Your task to perform on an android device: turn on location history Image 0: 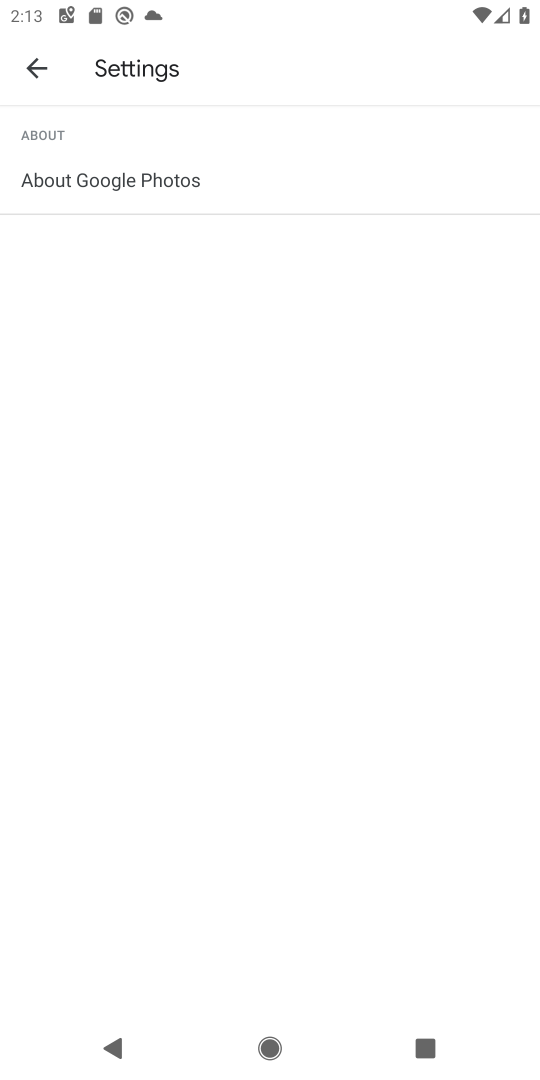
Step 0: press home button
Your task to perform on an android device: turn on location history Image 1: 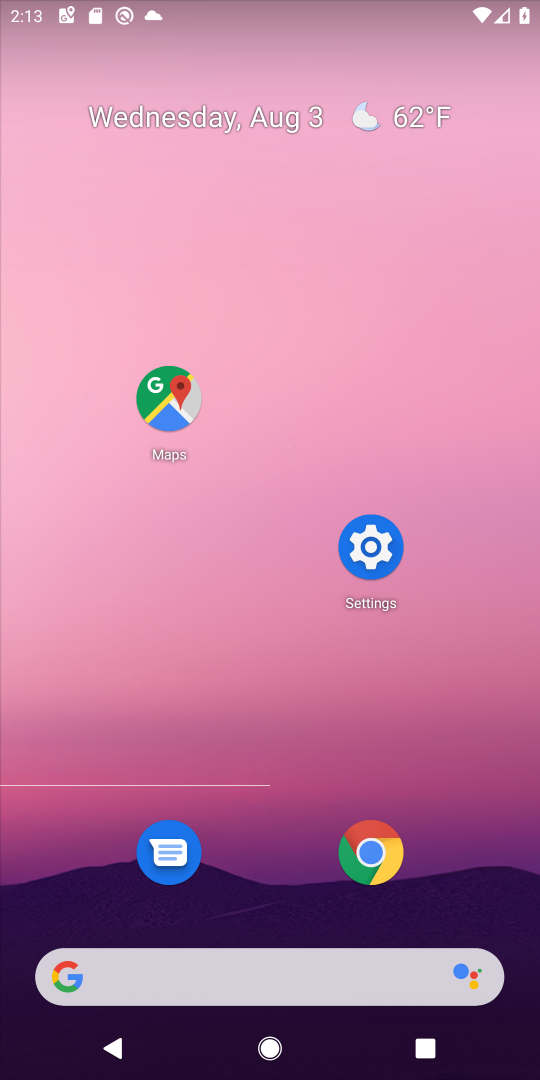
Step 1: click (170, 398)
Your task to perform on an android device: turn on location history Image 2: 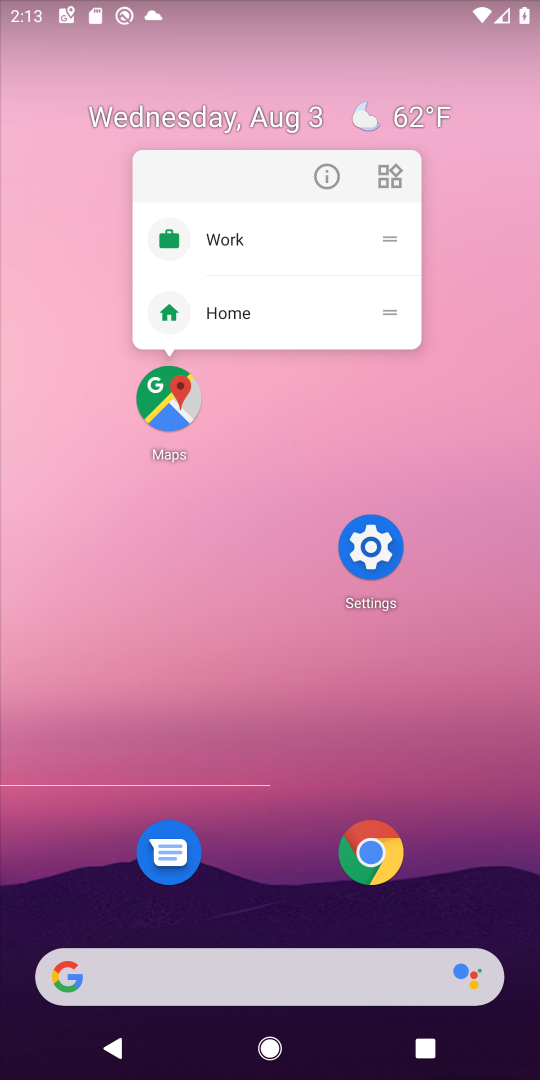
Step 2: click (171, 408)
Your task to perform on an android device: turn on location history Image 3: 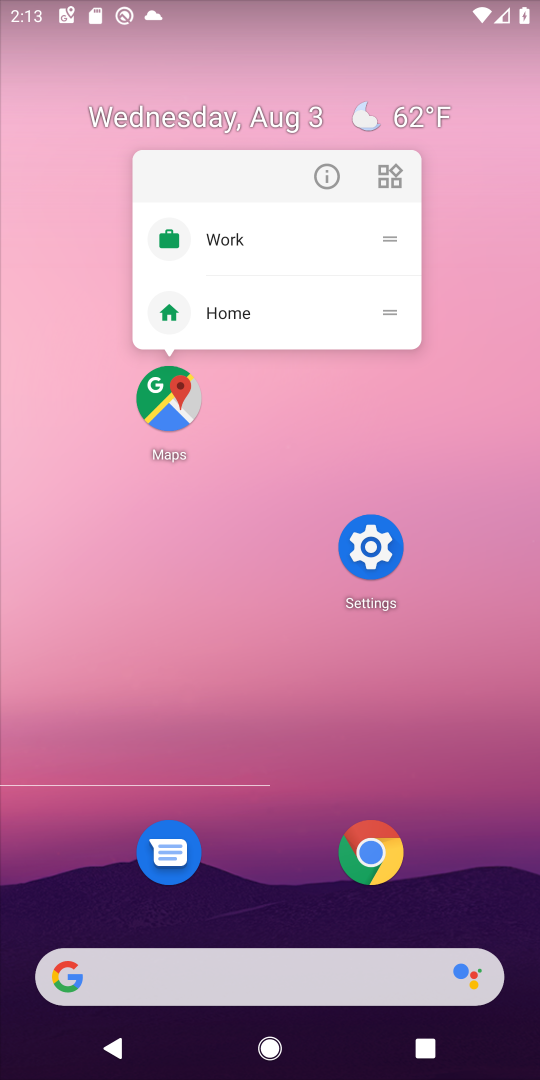
Step 3: click (168, 407)
Your task to perform on an android device: turn on location history Image 4: 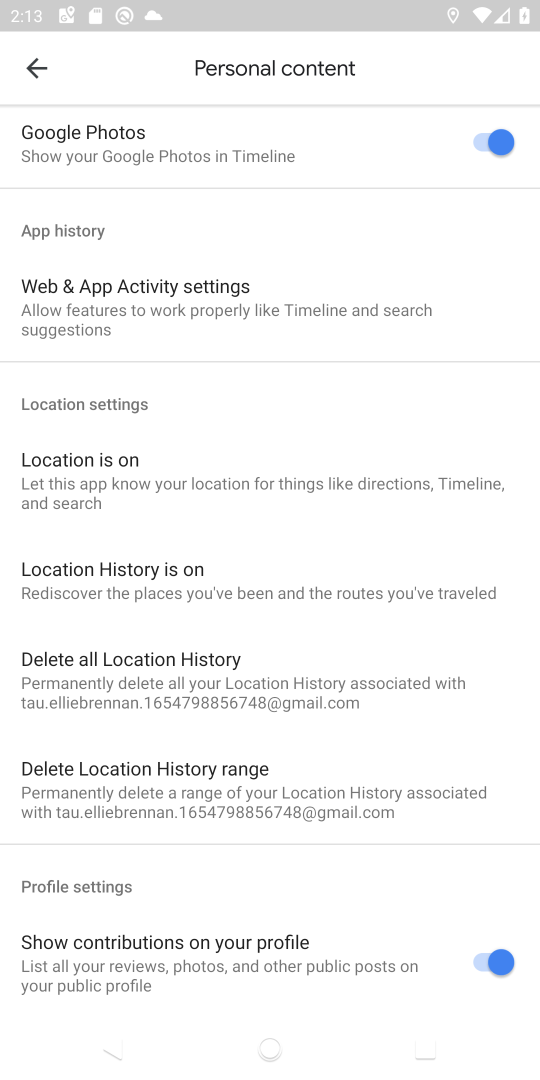
Step 4: click (200, 576)
Your task to perform on an android device: turn on location history Image 5: 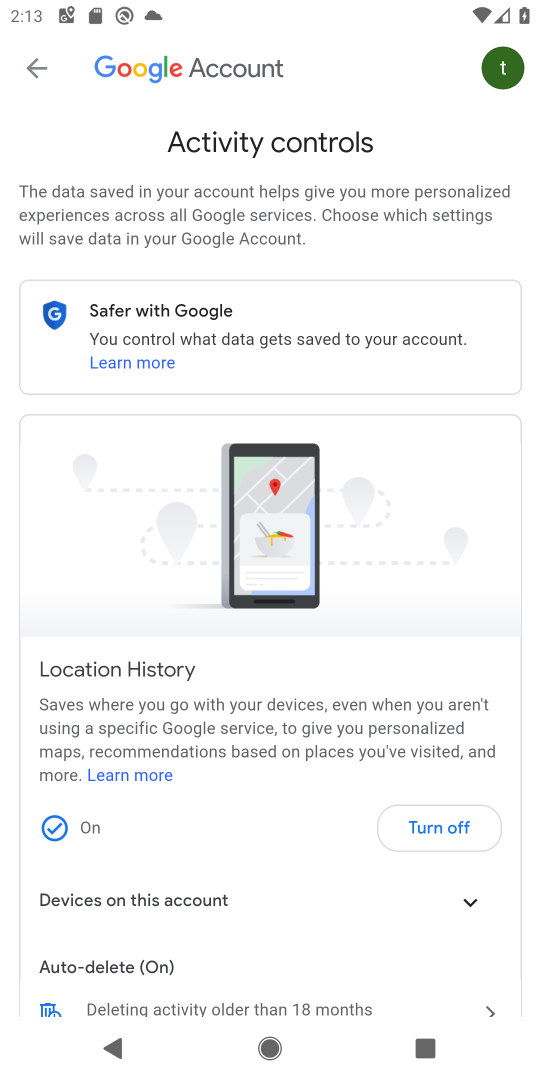
Step 5: task complete